Your task to perform on an android device: toggle pop-ups in chrome Image 0: 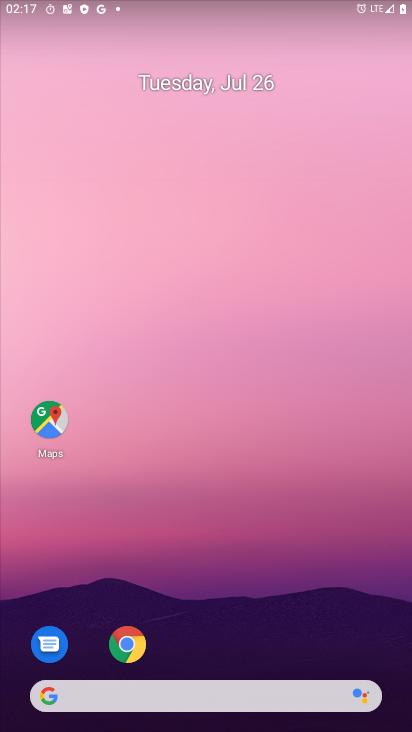
Step 0: click (129, 645)
Your task to perform on an android device: toggle pop-ups in chrome Image 1: 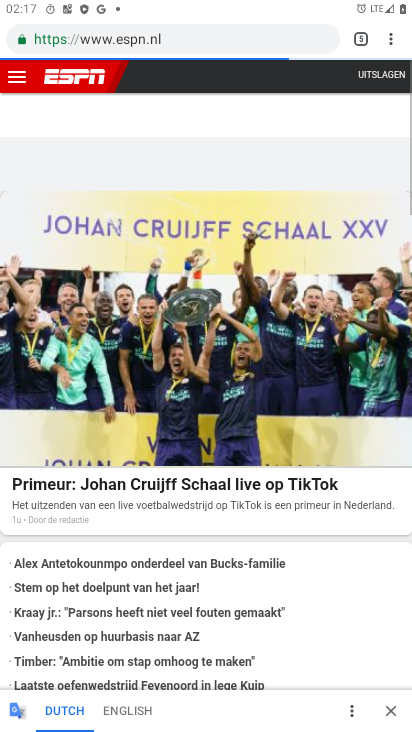
Step 1: drag from (392, 35) to (257, 441)
Your task to perform on an android device: toggle pop-ups in chrome Image 2: 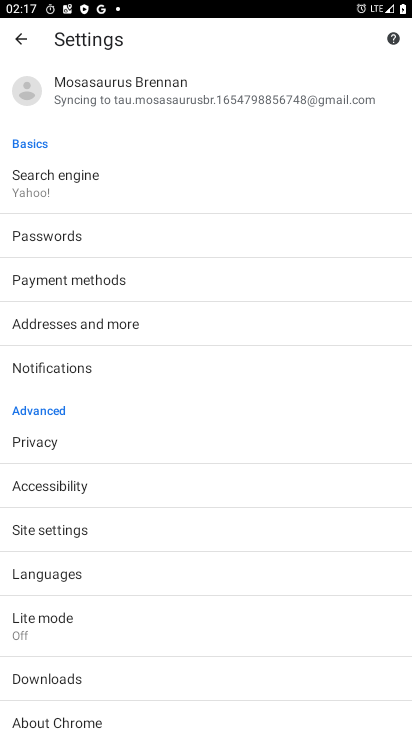
Step 2: click (61, 534)
Your task to perform on an android device: toggle pop-ups in chrome Image 3: 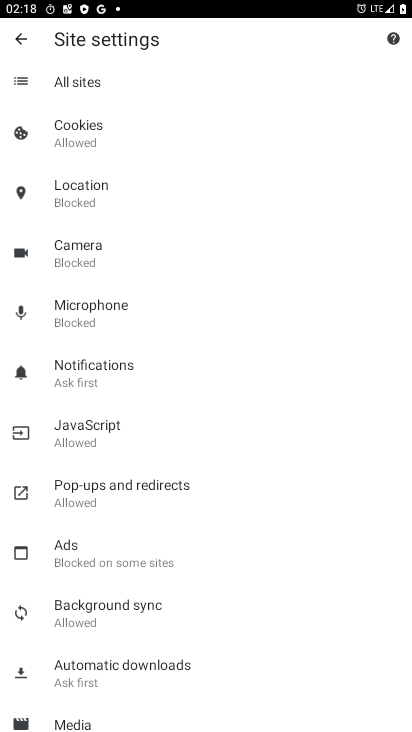
Step 3: click (73, 485)
Your task to perform on an android device: toggle pop-ups in chrome Image 4: 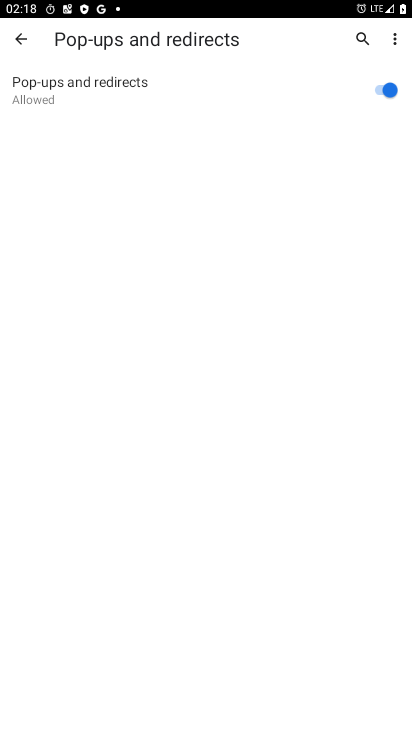
Step 4: click (389, 88)
Your task to perform on an android device: toggle pop-ups in chrome Image 5: 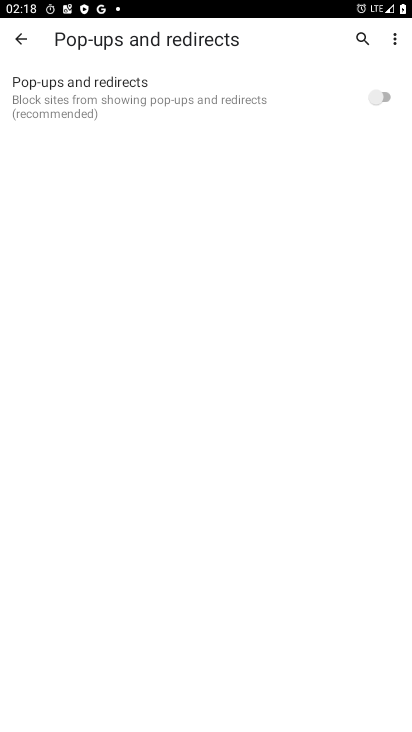
Step 5: task complete